Your task to perform on an android device: star an email in the gmail app Image 0: 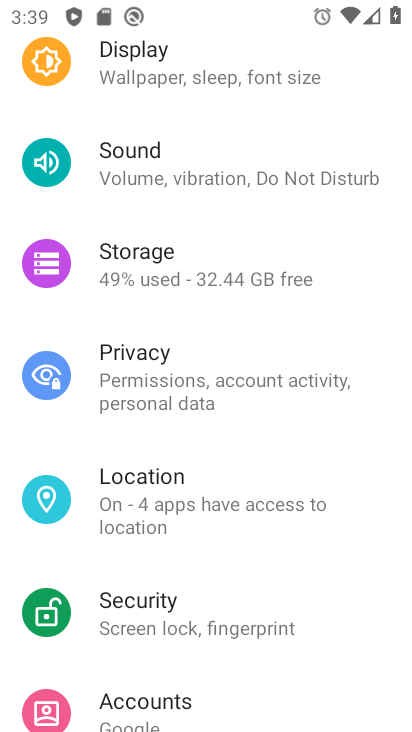
Step 0: press home button
Your task to perform on an android device: star an email in the gmail app Image 1: 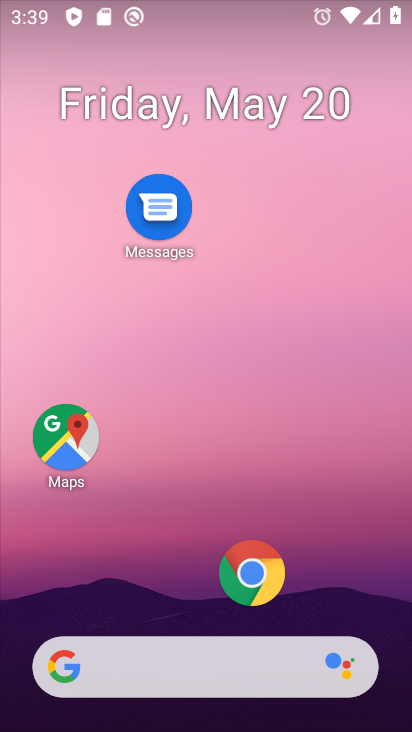
Step 1: drag from (192, 604) to (206, 4)
Your task to perform on an android device: star an email in the gmail app Image 2: 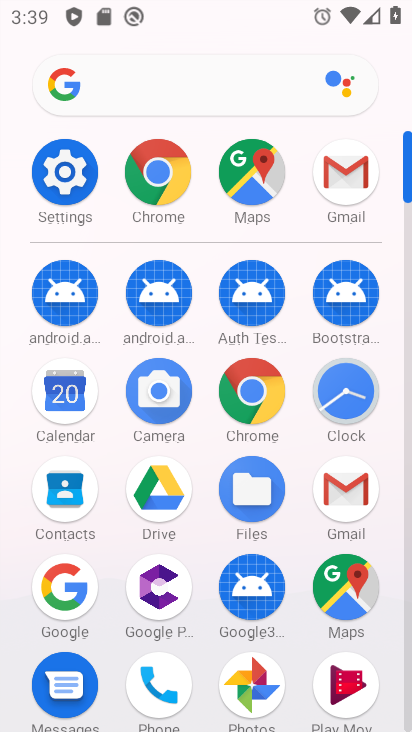
Step 2: click (357, 501)
Your task to perform on an android device: star an email in the gmail app Image 3: 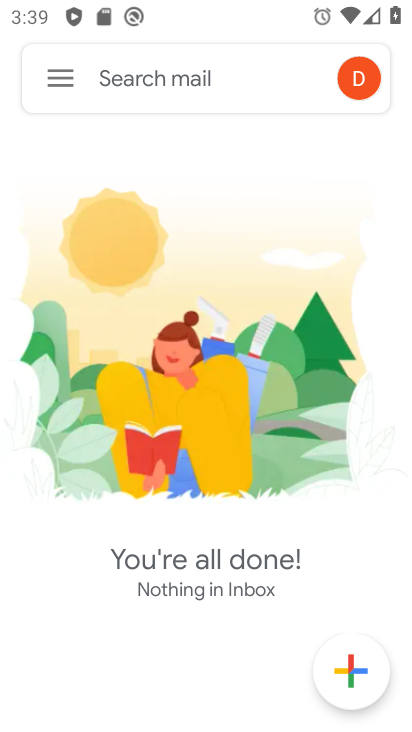
Step 3: press home button
Your task to perform on an android device: star an email in the gmail app Image 4: 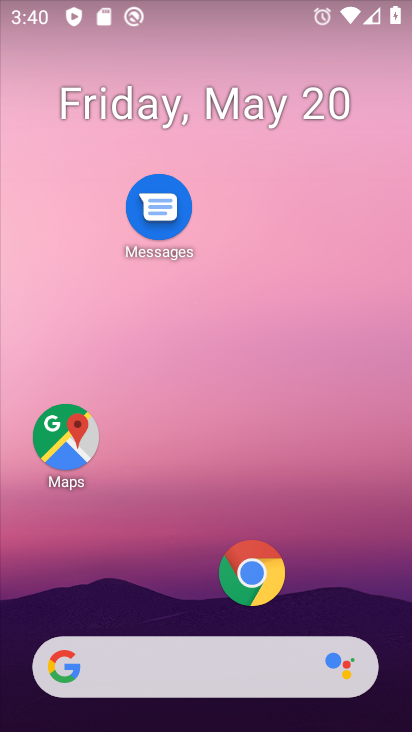
Step 4: drag from (190, 603) to (394, 207)
Your task to perform on an android device: star an email in the gmail app Image 5: 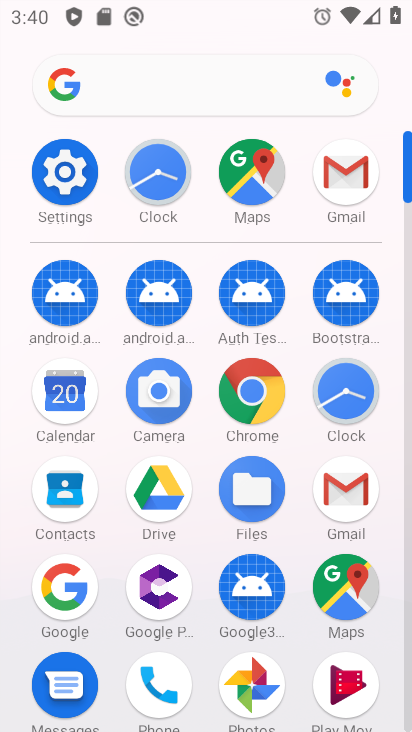
Step 5: click (334, 506)
Your task to perform on an android device: star an email in the gmail app Image 6: 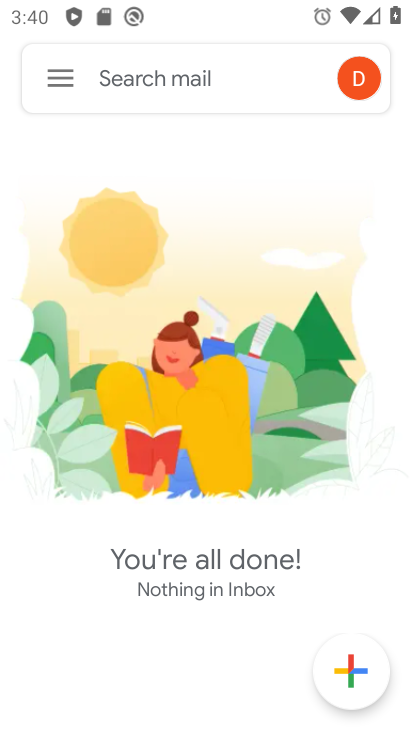
Step 6: task complete